Your task to perform on an android device: When is my next appointment? Image 0: 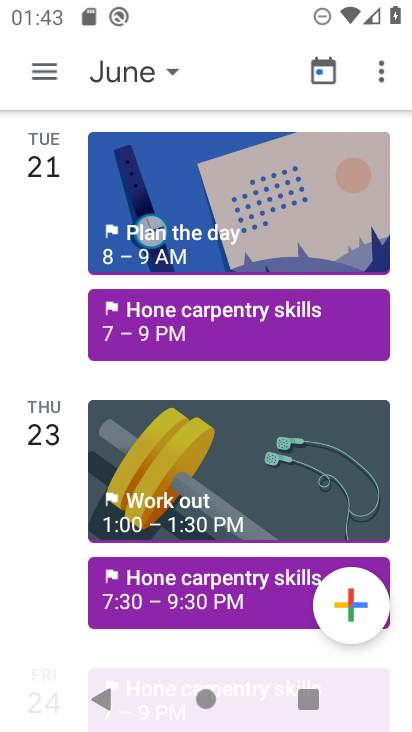
Step 0: press home button
Your task to perform on an android device: When is my next appointment? Image 1: 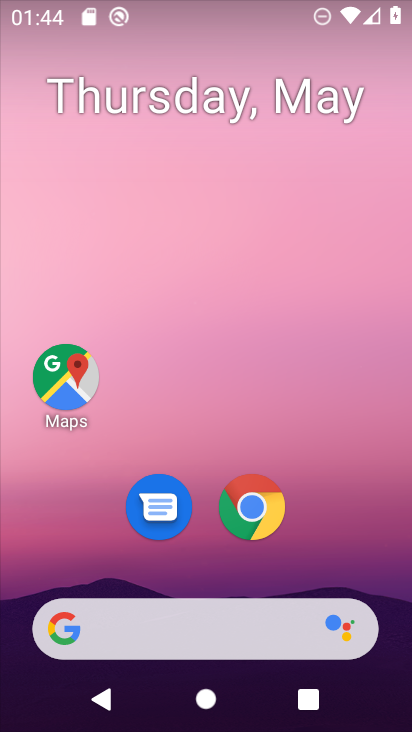
Step 1: drag from (378, 583) to (318, 187)
Your task to perform on an android device: When is my next appointment? Image 2: 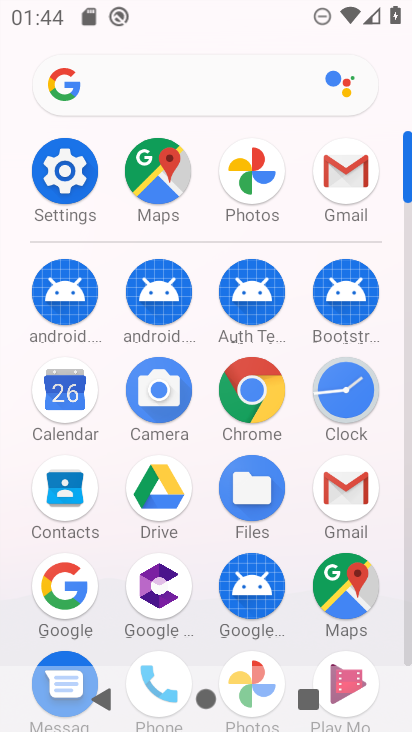
Step 2: click (64, 226)
Your task to perform on an android device: When is my next appointment? Image 3: 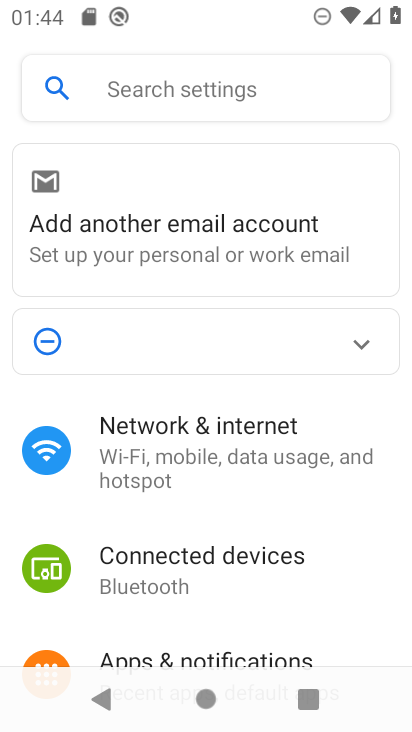
Step 3: drag from (283, 576) to (264, 316)
Your task to perform on an android device: When is my next appointment? Image 4: 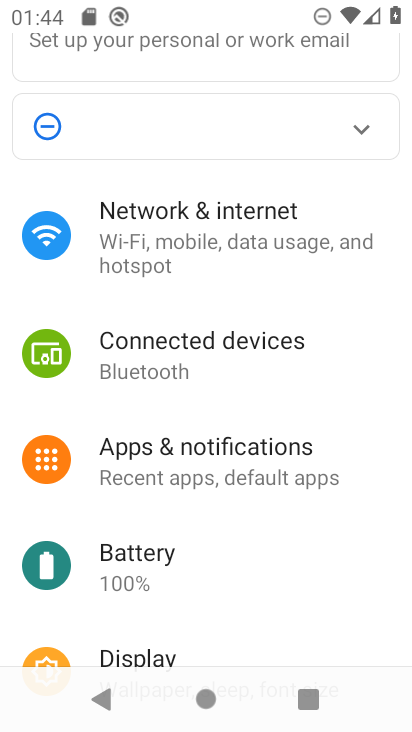
Step 4: drag from (301, 552) to (244, 280)
Your task to perform on an android device: When is my next appointment? Image 5: 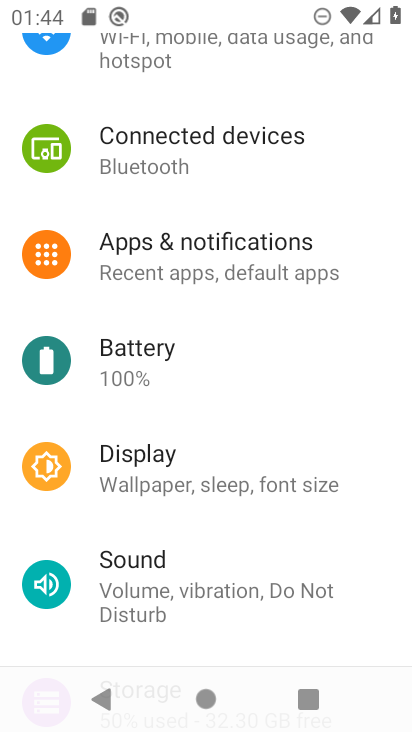
Step 5: drag from (266, 494) to (243, 269)
Your task to perform on an android device: When is my next appointment? Image 6: 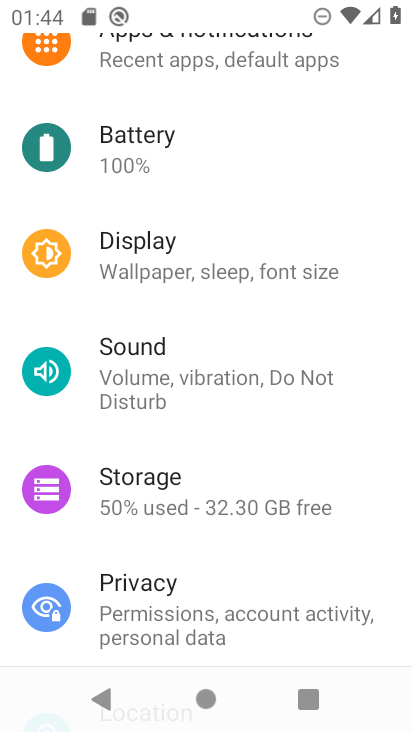
Step 6: press home button
Your task to perform on an android device: When is my next appointment? Image 7: 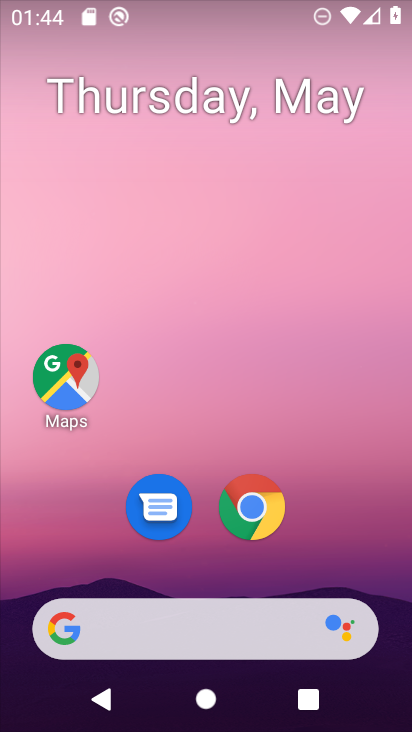
Step 7: drag from (373, 567) to (293, 51)
Your task to perform on an android device: When is my next appointment? Image 8: 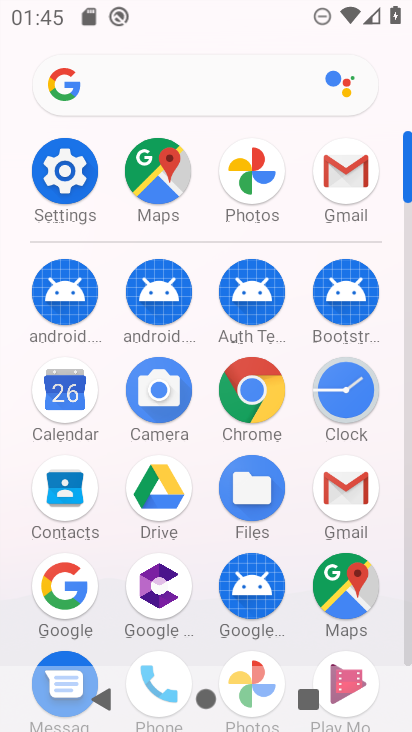
Step 8: click (77, 386)
Your task to perform on an android device: When is my next appointment? Image 9: 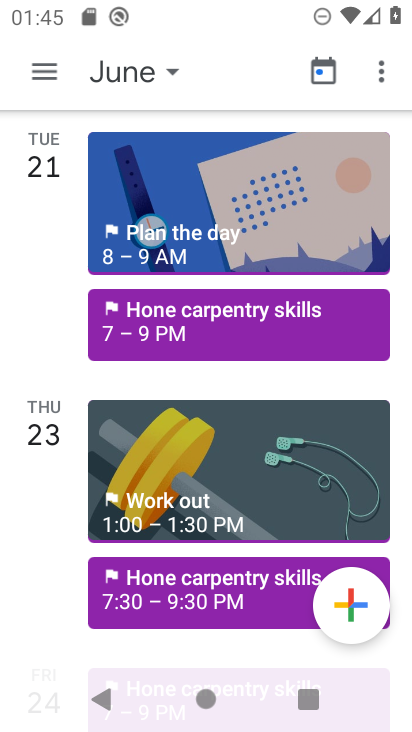
Step 9: task complete